Your task to perform on an android device: turn on showing notifications on the lock screen Image 0: 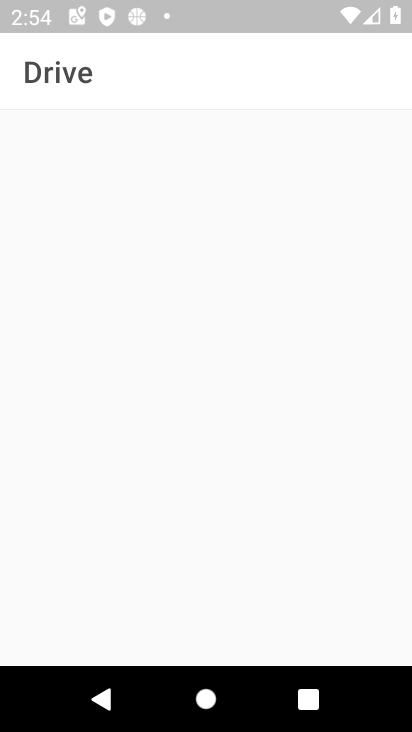
Step 0: press home button
Your task to perform on an android device: turn on showing notifications on the lock screen Image 1: 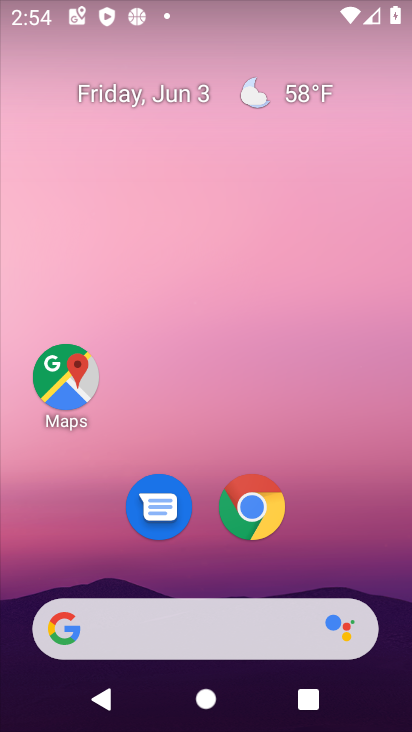
Step 1: drag from (349, 519) to (217, 70)
Your task to perform on an android device: turn on showing notifications on the lock screen Image 2: 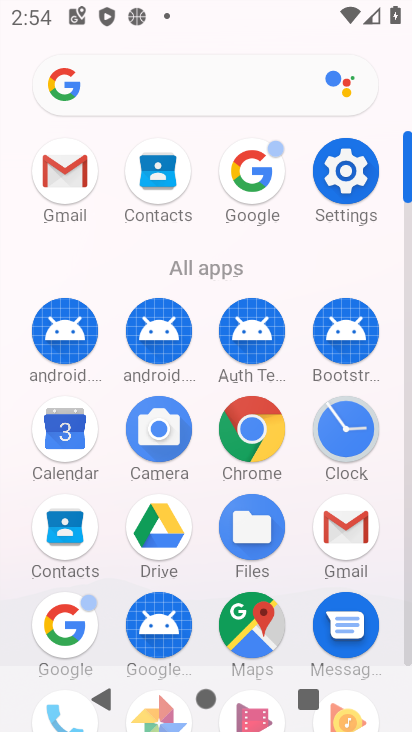
Step 2: click (345, 171)
Your task to perform on an android device: turn on showing notifications on the lock screen Image 3: 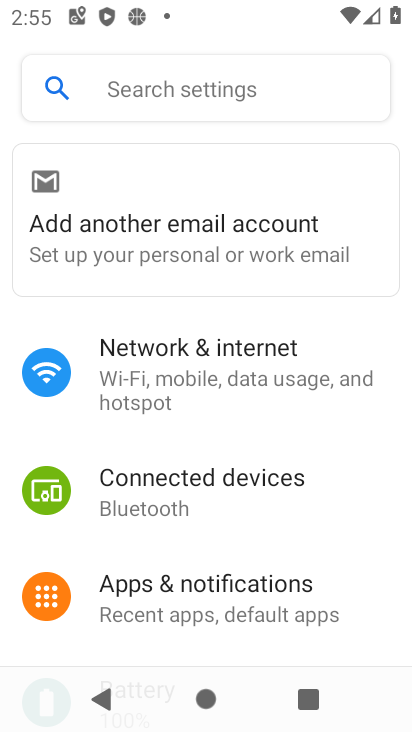
Step 3: click (221, 591)
Your task to perform on an android device: turn on showing notifications on the lock screen Image 4: 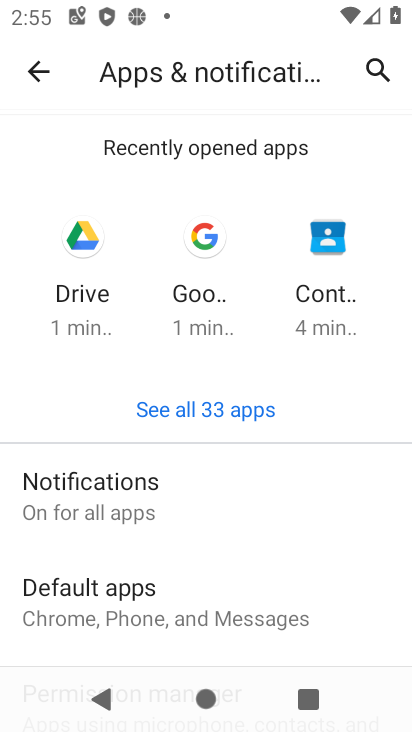
Step 4: click (119, 492)
Your task to perform on an android device: turn on showing notifications on the lock screen Image 5: 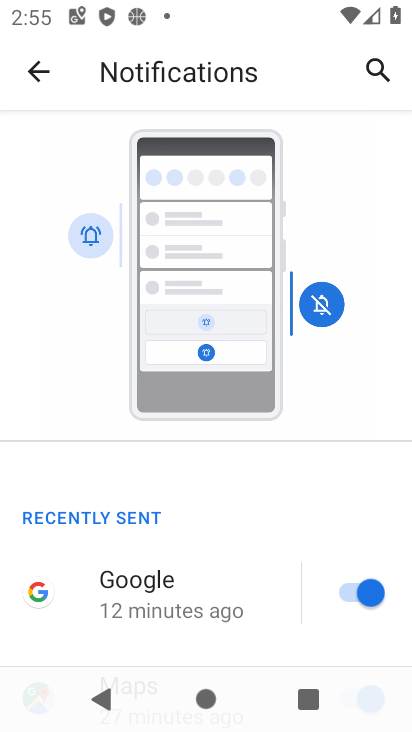
Step 5: drag from (210, 504) to (198, 355)
Your task to perform on an android device: turn on showing notifications on the lock screen Image 6: 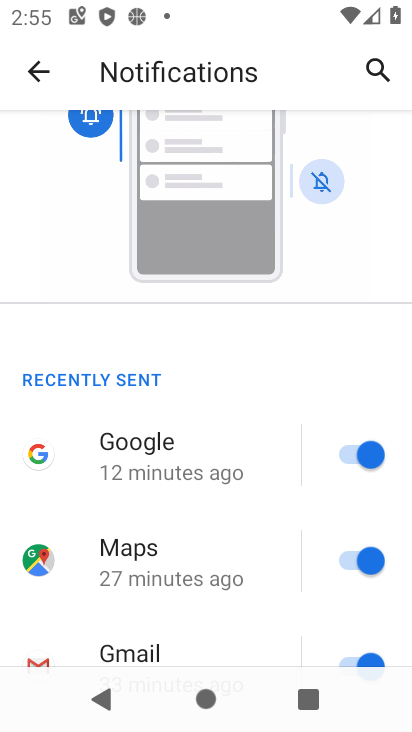
Step 6: drag from (237, 524) to (240, 397)
Your task to perform on an android device: turn on showing notifications on the lock screen Image 7: 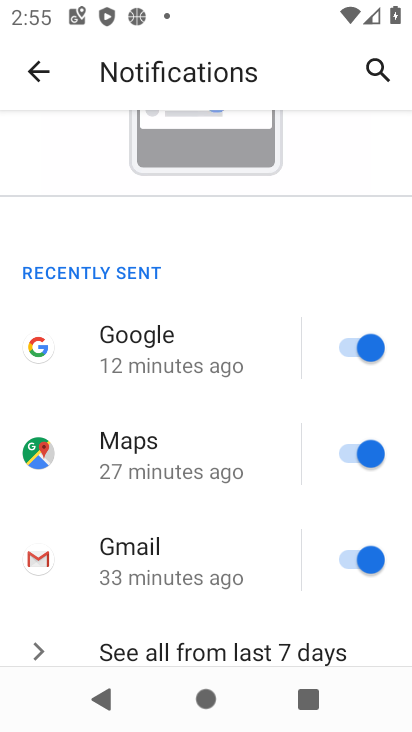
Step 7: drag from (254, 614) to (256, 437)
Your task to perform on an android device: turn on showing notifications on the lock screen Image 8: 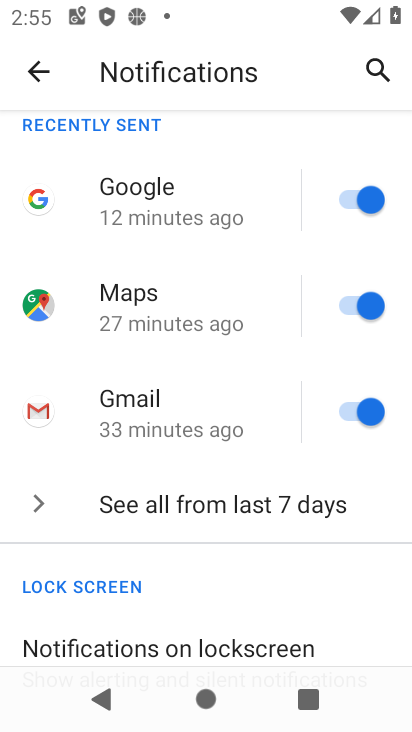
Step 8: drag from (232, 613) to (215, 452)
Your task to perform on an android device: turn on showing notifications on the lock screen Image 9: 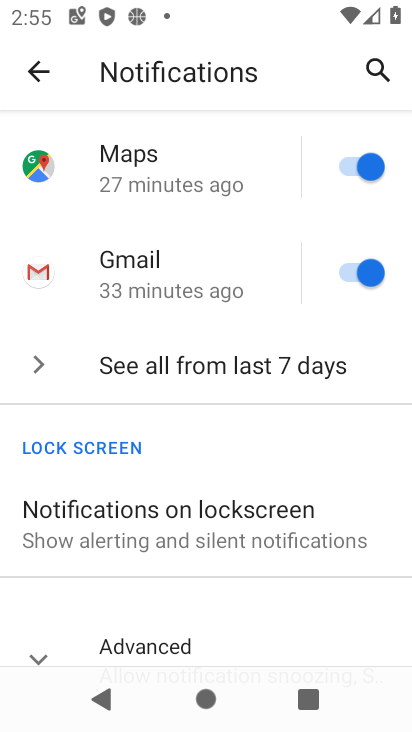
Step 9: click (260, 540)
Your task to perform on an android device: turn on showing notifications on the lock screen Image 10: 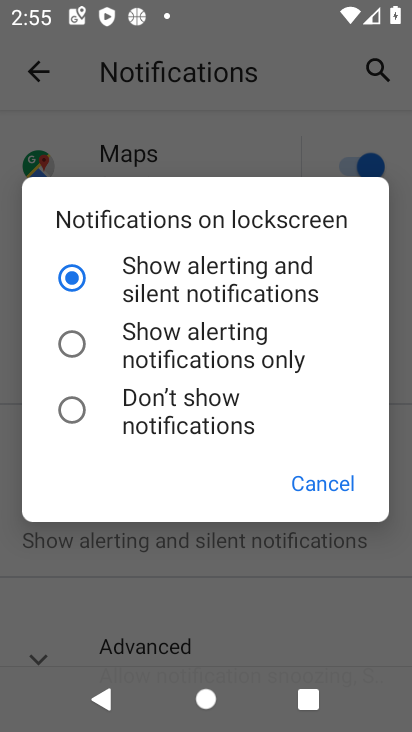
Step 10: click (74, 274)
Your task to perform on an android device: turn on showing notifications on the lock screen Image 11: 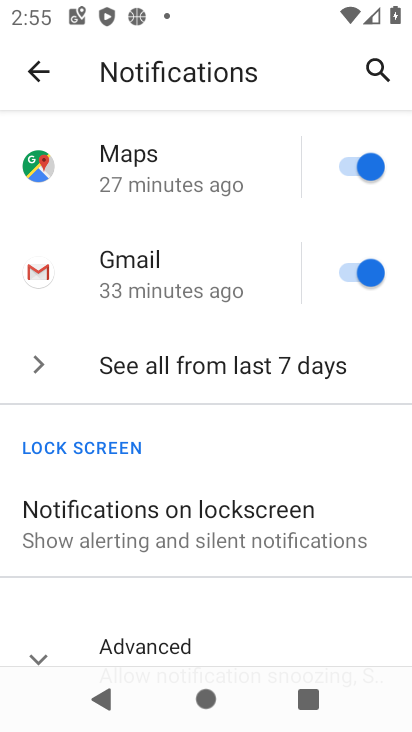
Step 11: task complete